Your task to perform on an android device: Open privacy settings Image 0: 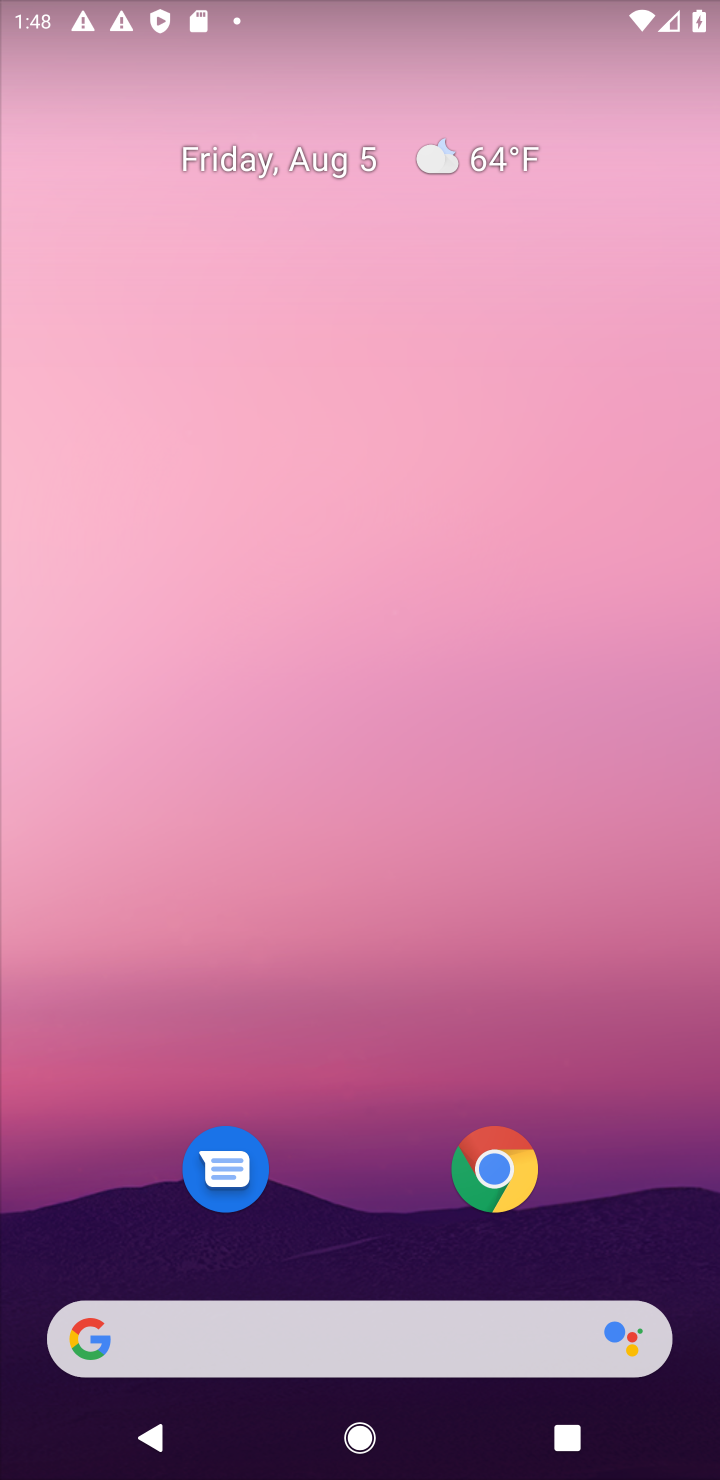
Step 0: drag from (365, 1070) to (311, 246)
Your task to perform on an android device: Open privacy settings Image 1: 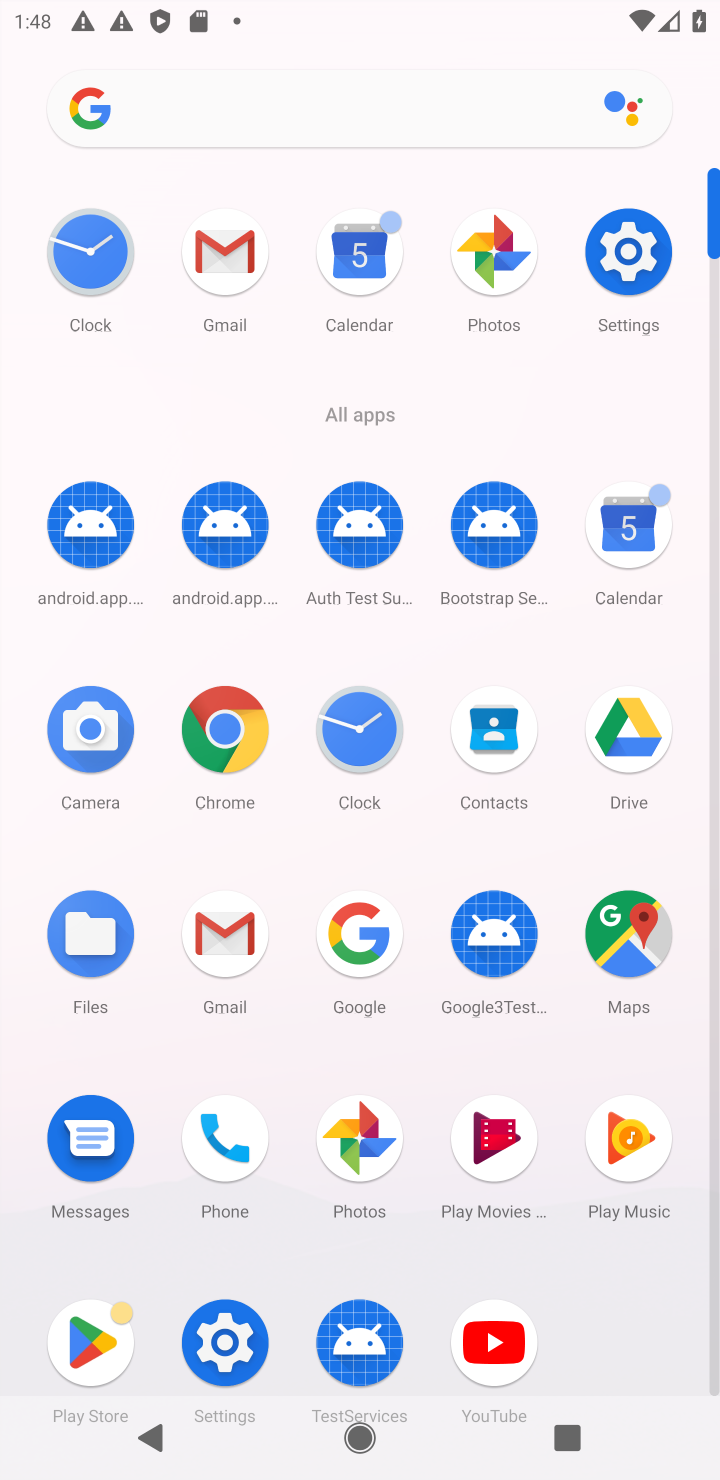
Step 1: click (664, 294)
Your task to perform on an android device: Open privacy settings Image 2: 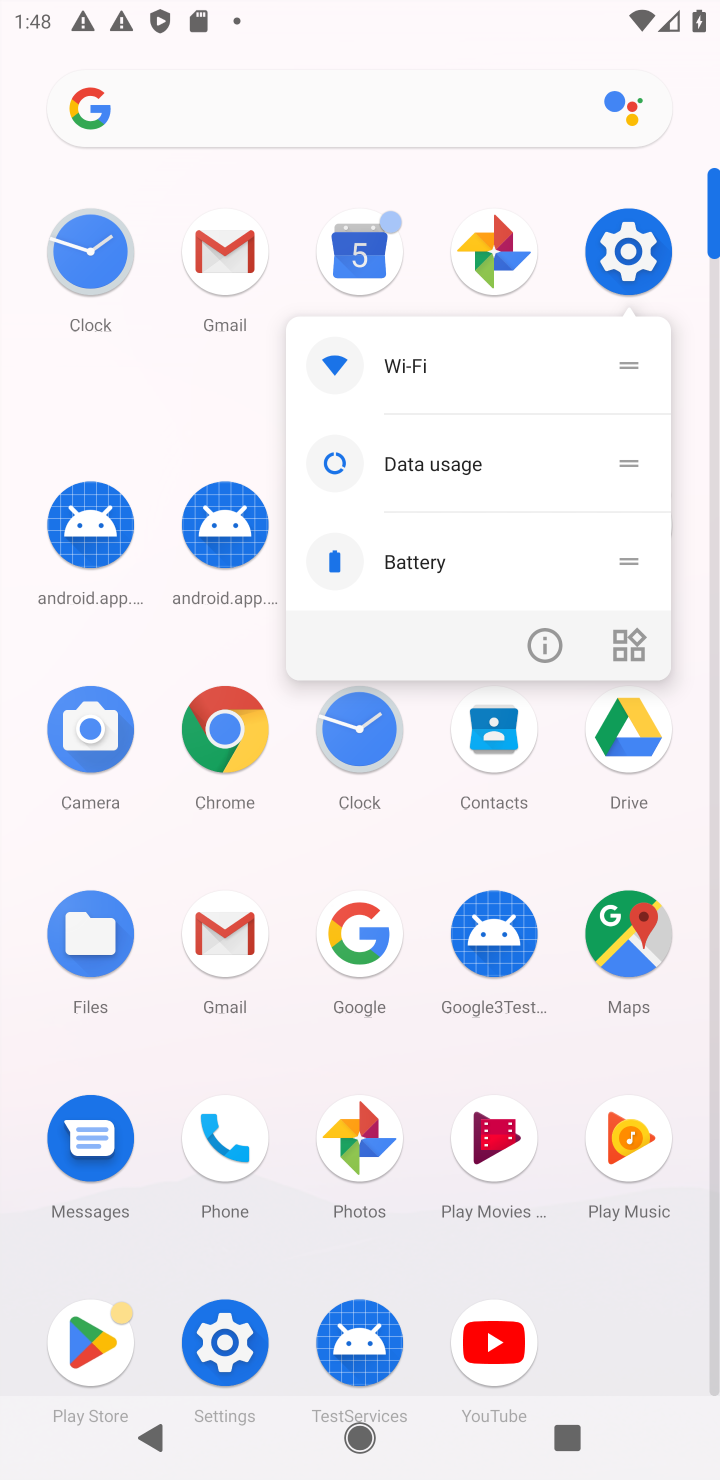
Step 2: click (627, 239)
Your task to perform on an android device: Open privacy settings Image 3: 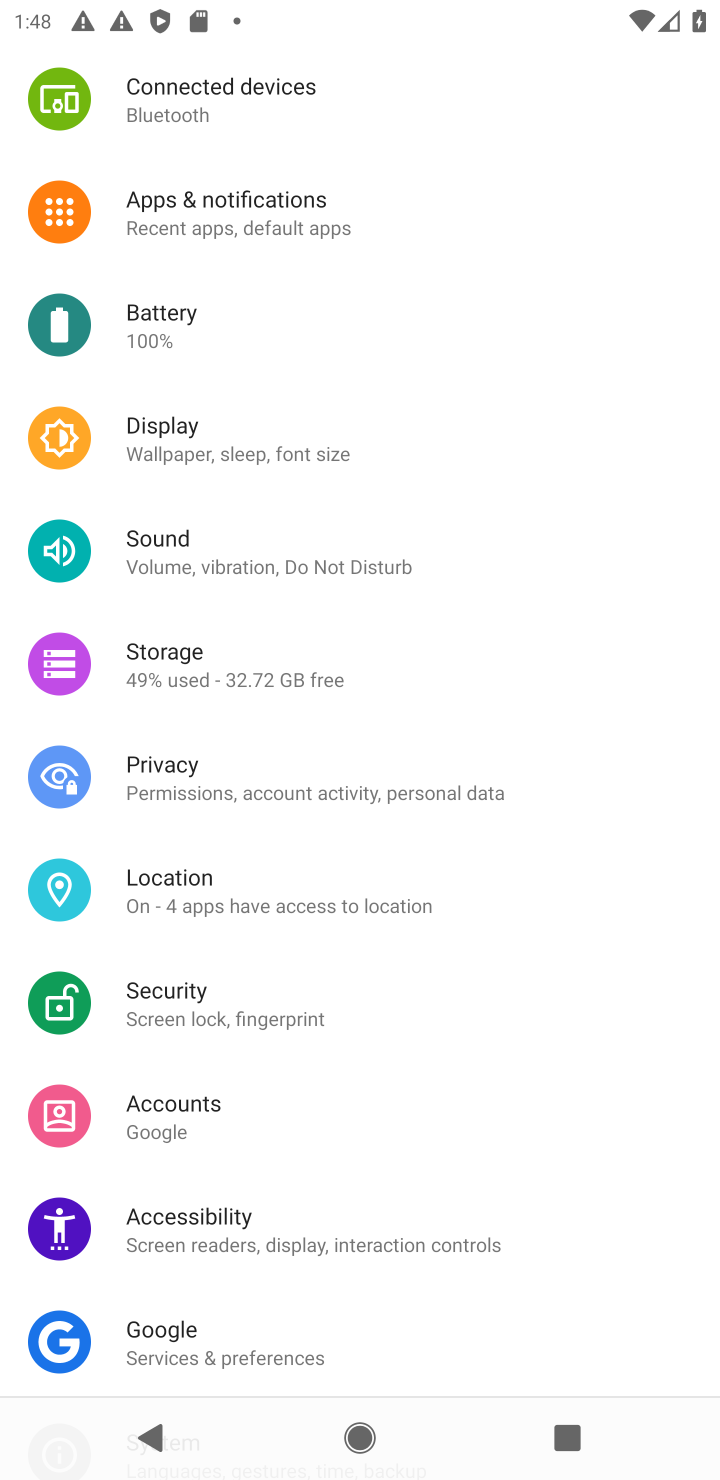
Step 3: click (627, 239)
Your task to perform on an android device: Open privacy settings Image 4: 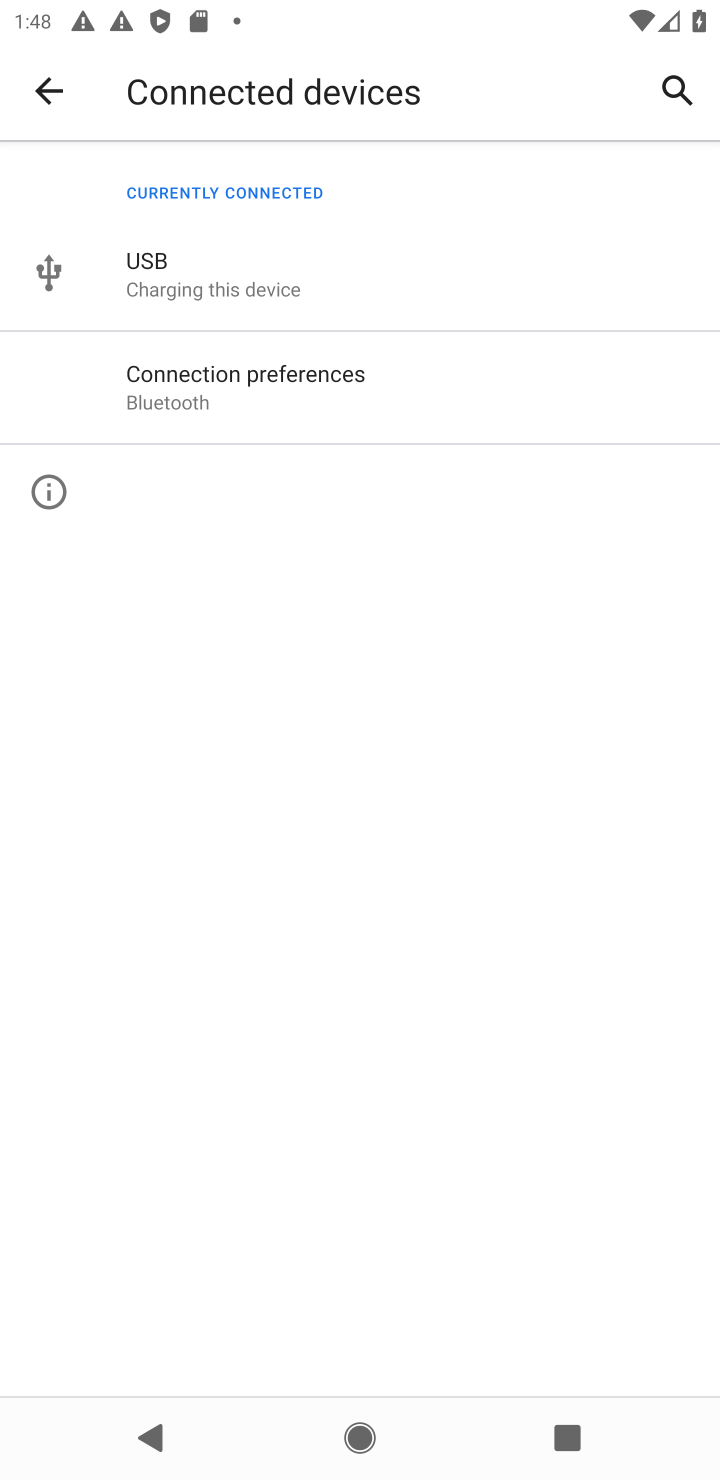
Step 4: click (32, 99)
Your task to perform on an android device: Open privacy settings Image 5: 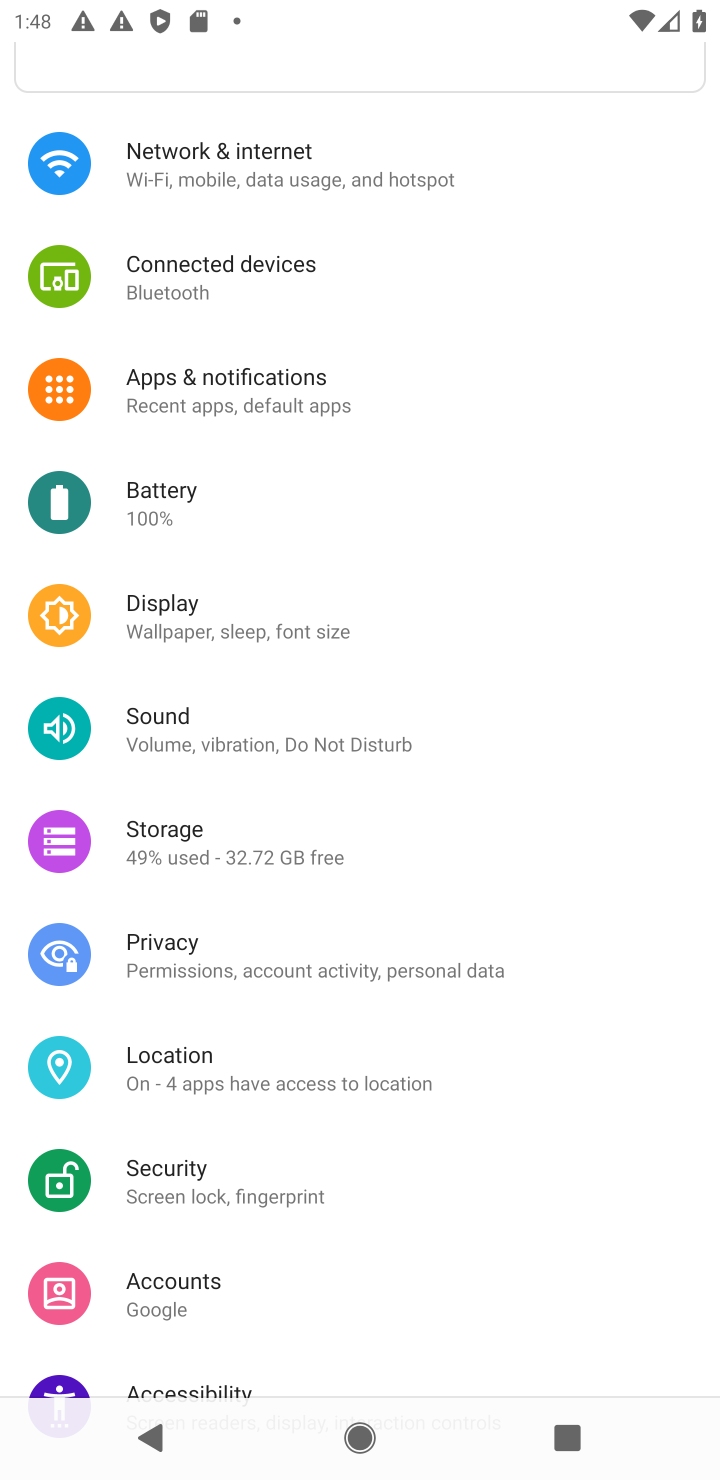
Step 5: click (198, 972)
Your task to perform on an android device: Open privacy settings Image 6: 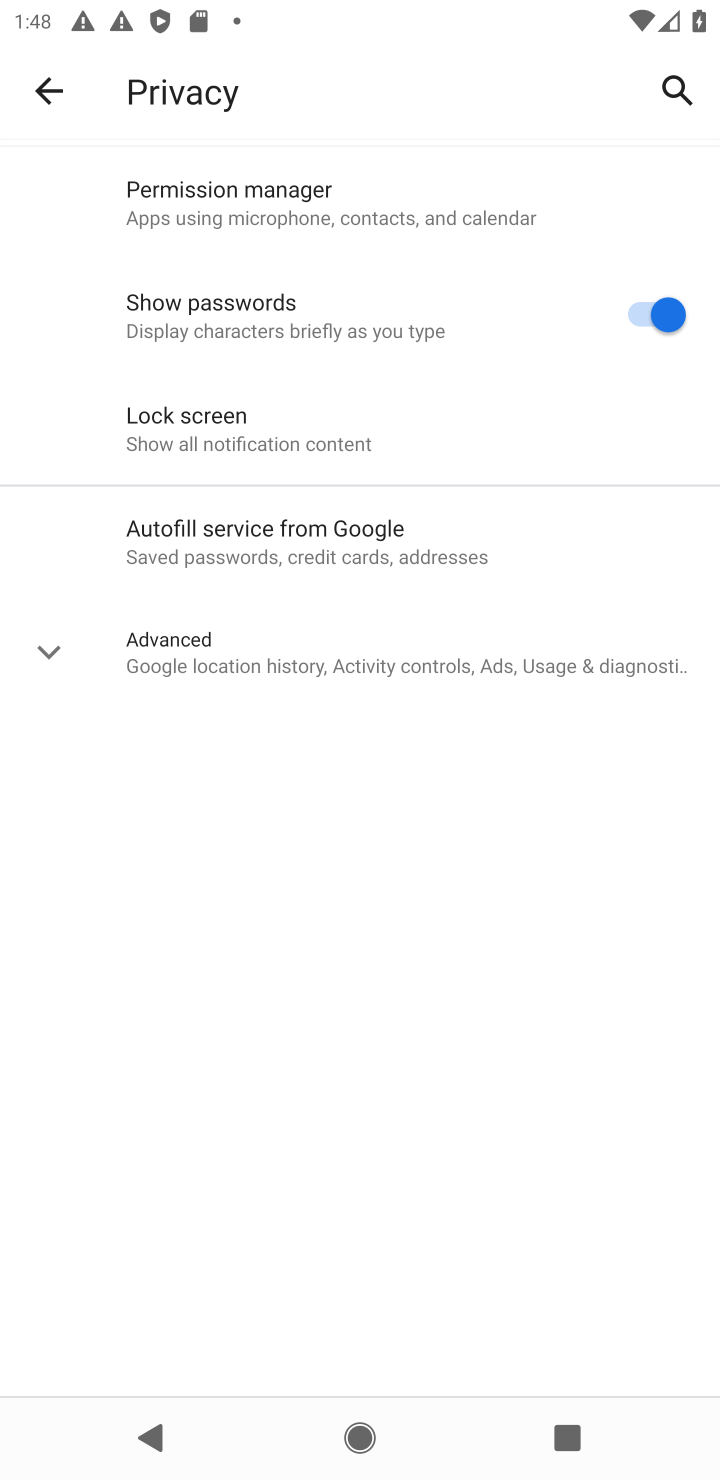
Step 6: task complete